Your task to perform on an android device: add a contact Image 0: 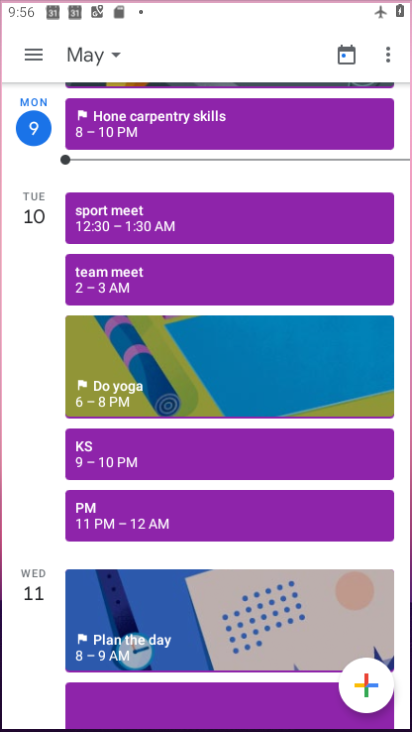
Step 0: drag from (271, 704) to (260, 269)
Your task to perform on an android device: add a contact Image 1: 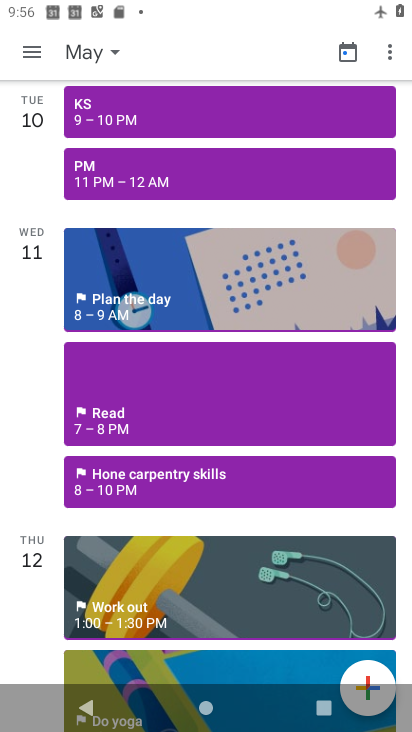
Step 1: press home button
Your task to perform on an android device: add a contact Image 2: 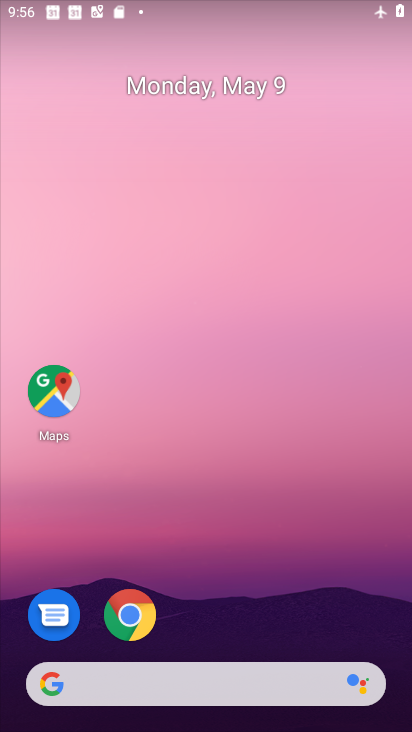
Step 2: drag from (276, 710) to (297, 191)
Your task to perform on an android device: add a contact Image 3: 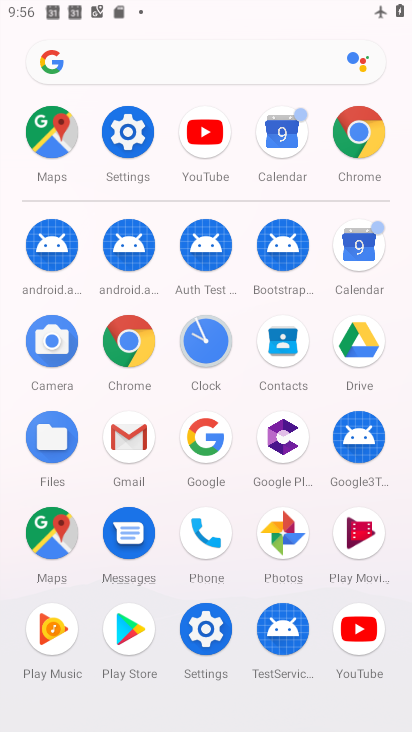
Step 3: click (199, 524)
Your task to perform on an android device: add a contact Image 4: 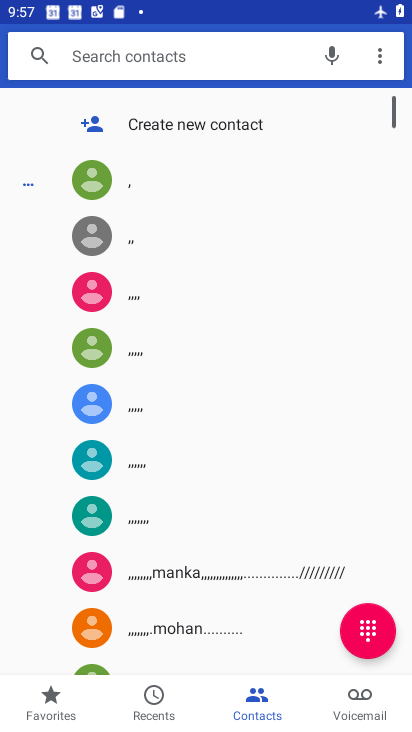
Step 4: click (169, 138)
Your task to perform on an android device: add a contact Image 5: 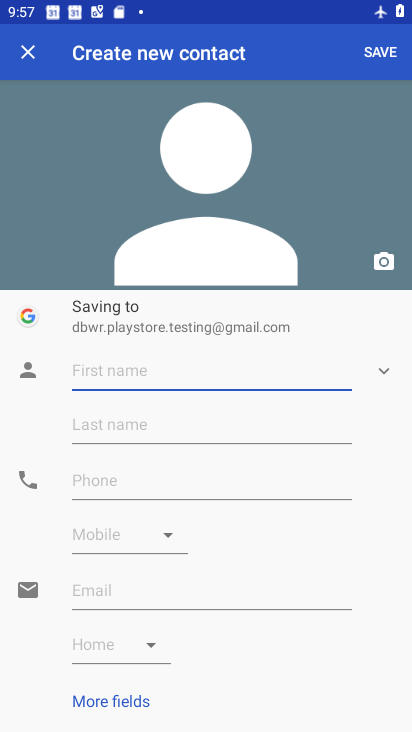
Step 5: click (137, 366)
Your task to perform on an android device: add a contact Image 6: 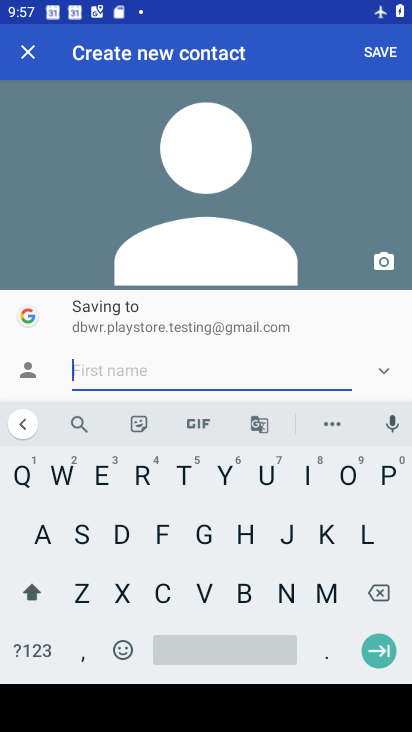
Step 6: click (128, 532)
Your task to perform on an android device: add a contact Image 7: 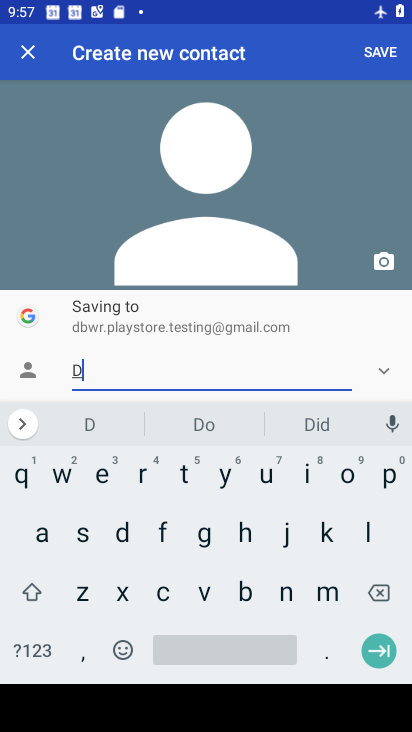
Step 7: click (149, 535)
Your task to perform on an android device: add a contact Image 8: 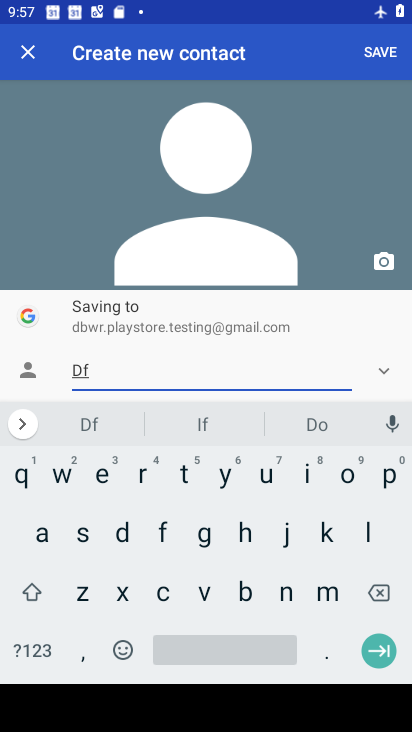
Step 8: drag from (238, 322) to (228, 142)
Your task to perform on an android device: add a contact Image 9: 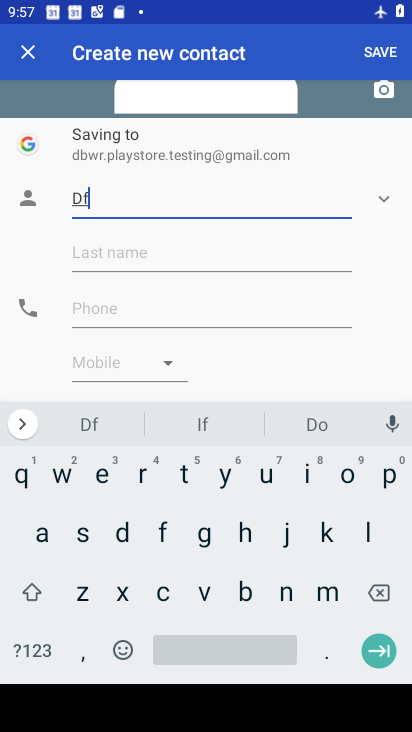
Step 9: click (86, 313)
Your task to perform on an android device: add a contact Image 10: 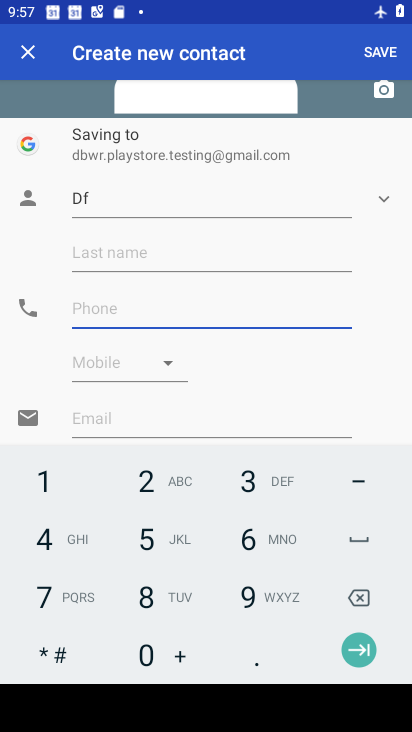
Step 10: click (156, 548)
Your task to perform on an android device: add a contact Image 11: 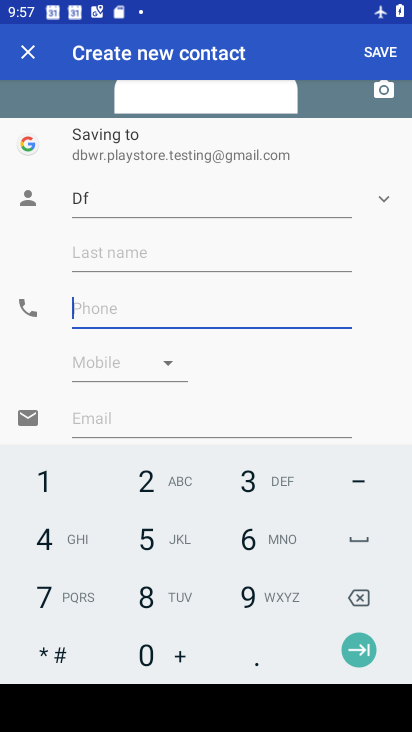
Step 11: click (129, 581)
Your task to perform on an android device: add a contact Image 12: 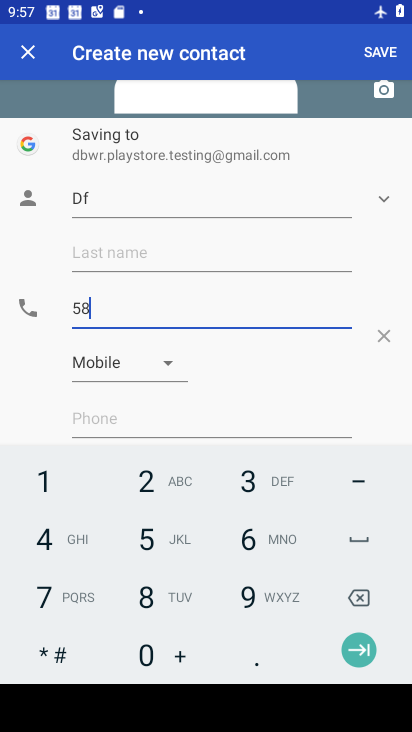
Step 12: click (242, 558)
Your task to perform on an android device: add a contact Image 13: 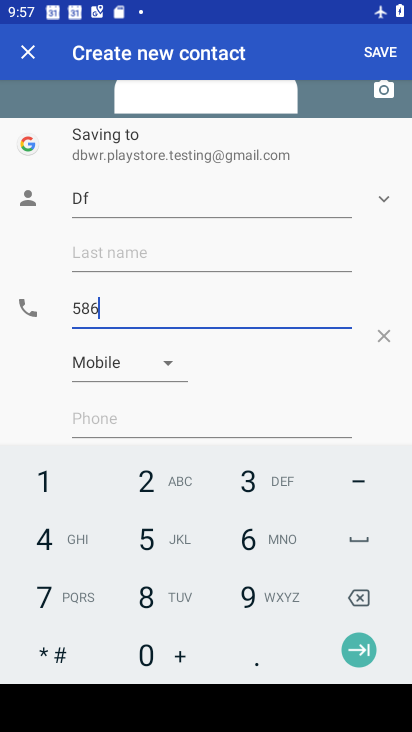
Step 13: click (135, 593)
Your task to perform on an android device: add a contact Image 14: 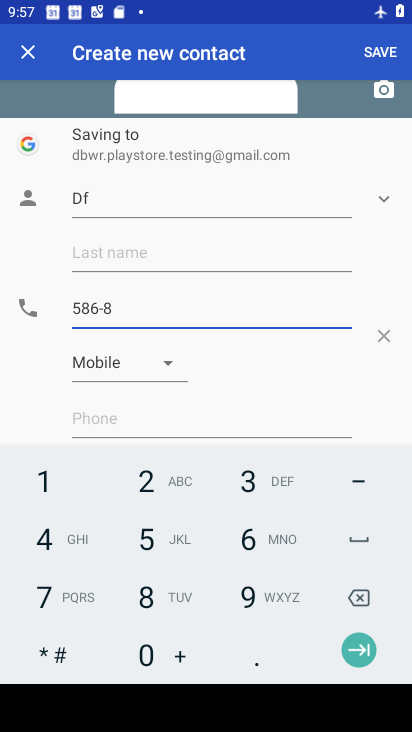
Step 14: click (359, 55)
Your task to perform on an android device: add a contact Image 15: 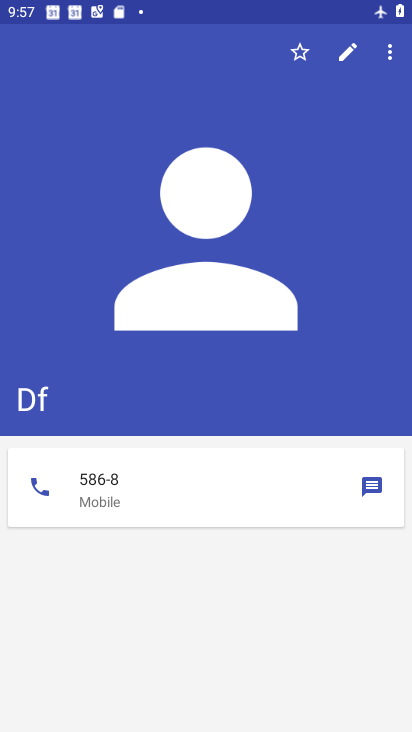
Step 15: task complete